Your task to perform on an android device: Open Android settings Image 0: 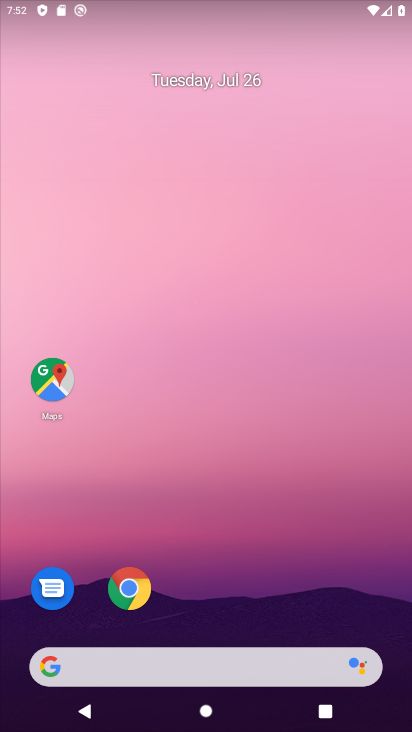
Step 0: drag from (163, 656) to (164, 103)
Your task to perform on an android device: Open Android settings Image 1: 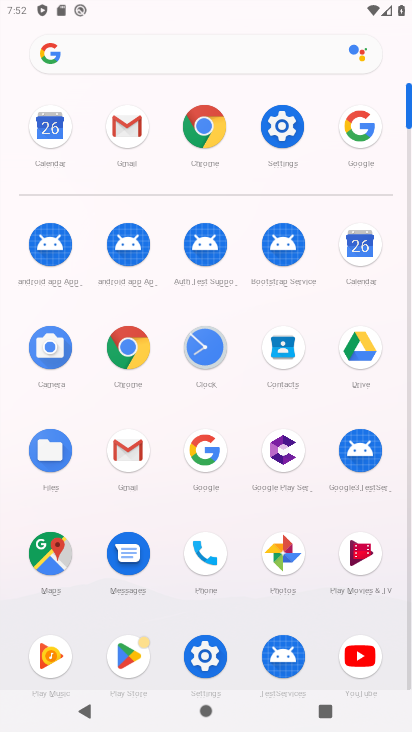
Step 1: click (274, 119)
Your task to perform on an android device: Open Android settings Image 2: 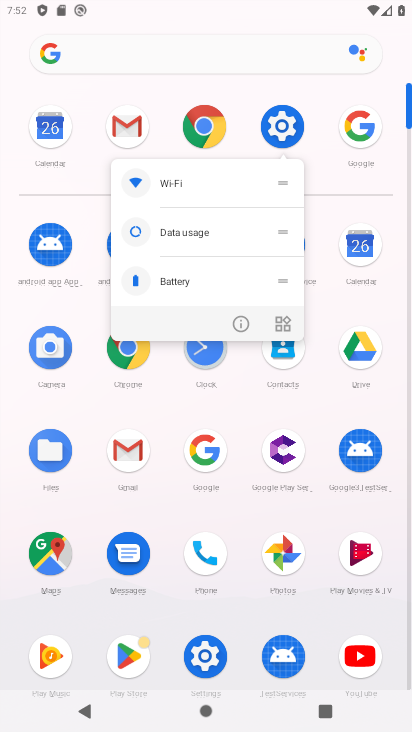
Step 2: click (292, 130)
Your task to perform on an android device: Open Android settings Image 3: 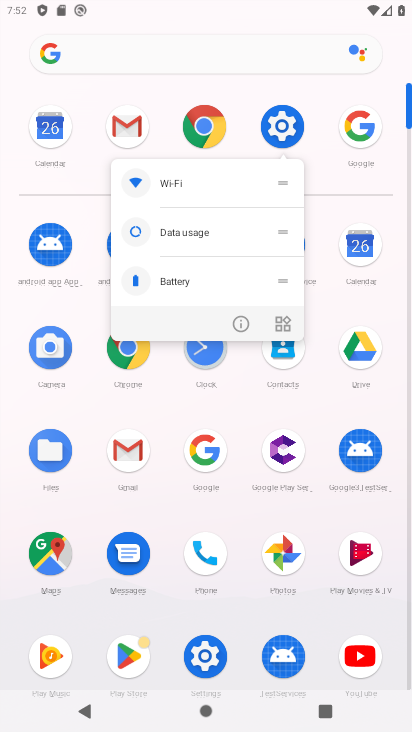
Step 3: click (292, 130)
Your task to perform on an android device: Open Android settings Image 4: 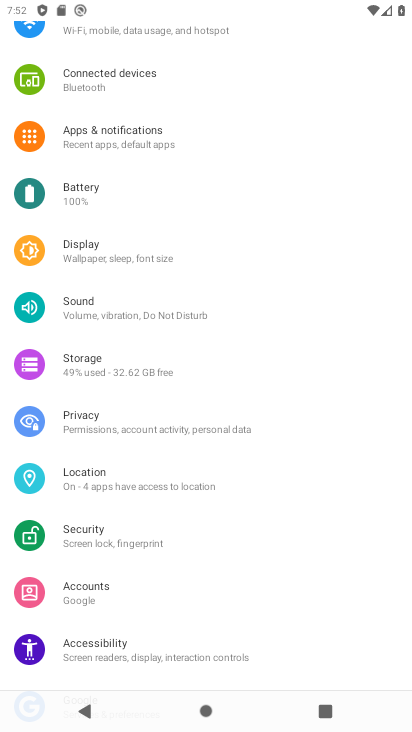
Step 4: task complete